Your task to perform on an android device: Open sound settings Image 0: 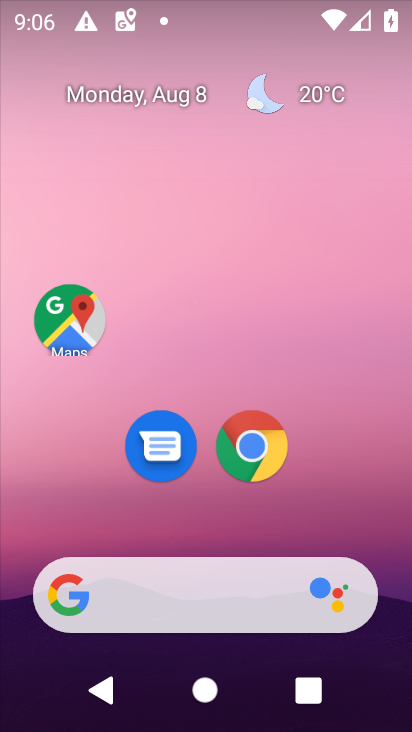
Step 0: drag from (386, 609) to (357, 117)
Your task to perform on an android device: Open sound settings Image 1: 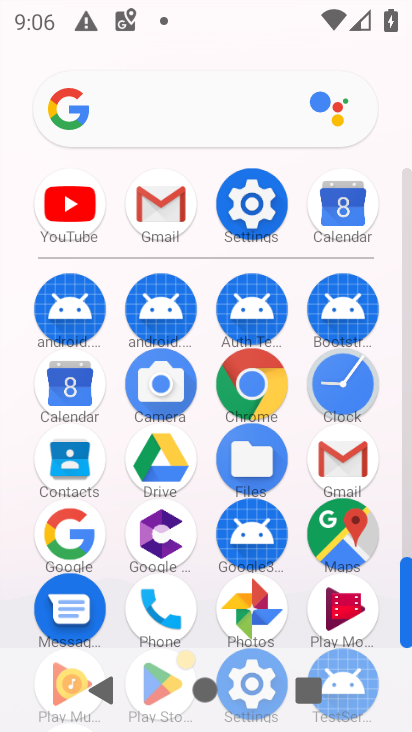
Step 1: drag from (406, 532) to (409, 484)
Your task to perform on an android device: Open sound settings Image 2: 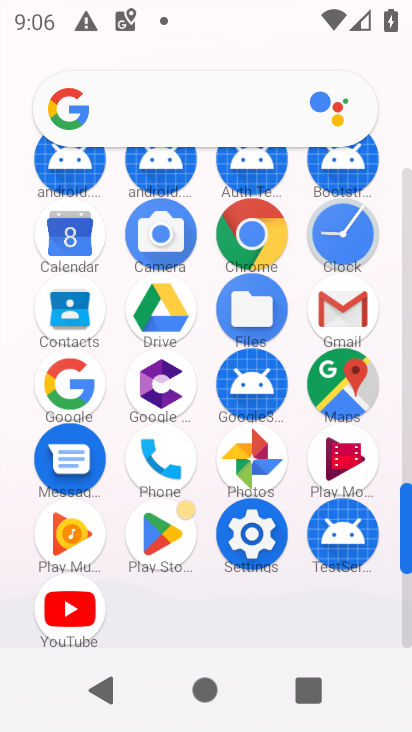
Step 2: click (253, 528)
Your task to perform on an android device: Open sound settings Image 3: 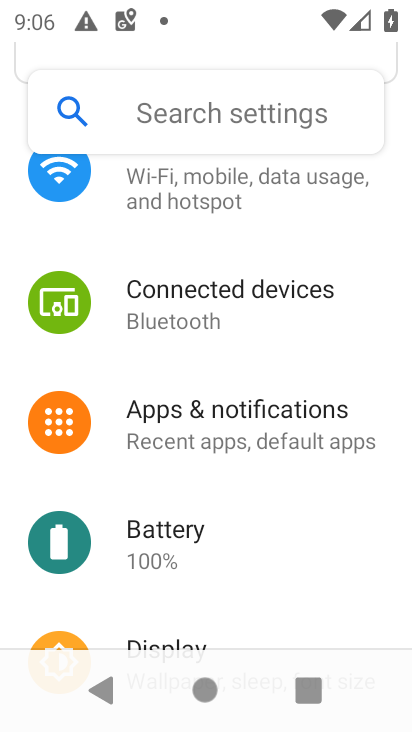
Step 3: drag from (318, 600) to (342, 198)
Your task to perform on an android device: Open sound settings Image 4: 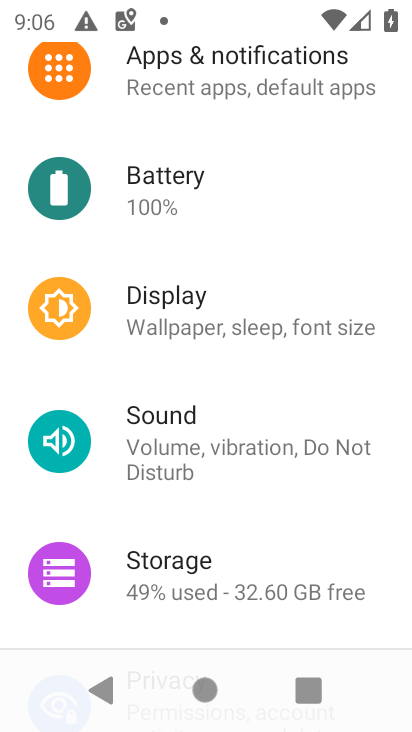
Step 4: click (154, 450)
Your task to perform on an android device: Open sound settings Image 5: 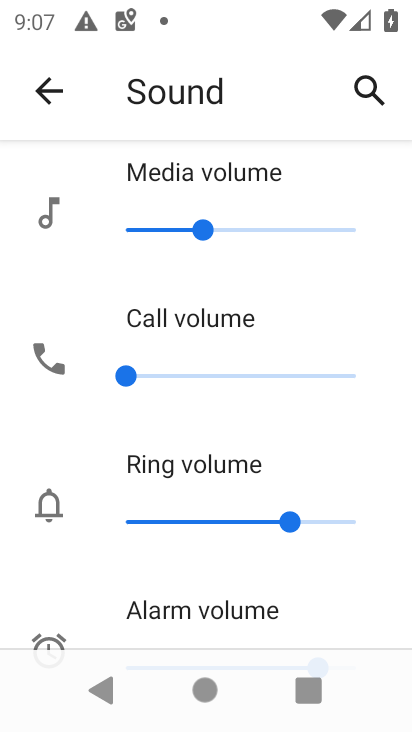
Step 5: task complete